Your task to perform on an android device: Show me the alarms in the clock app Image 0: 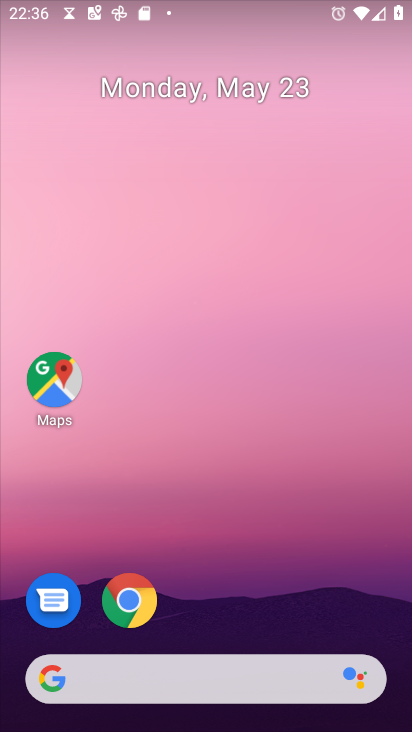
Step 0: drag from (180, 670) to (182, 202)
Your task to perform on an android device: Show me the alarms in the clock app Image 1: 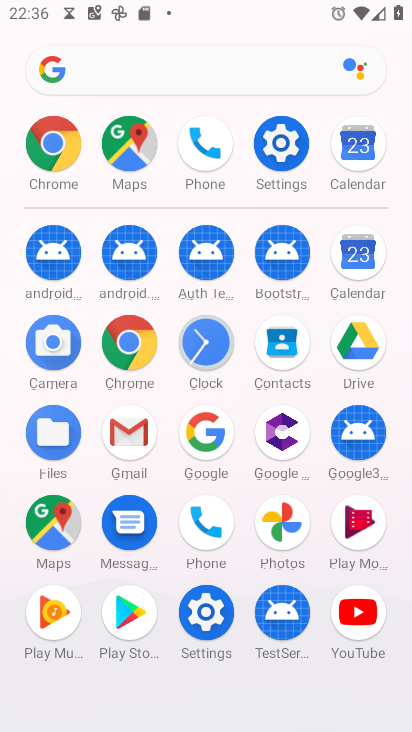
Step 1: click (211, 347)
Your task to perform on an android device: Show me the alarms in the clock app Image 2: 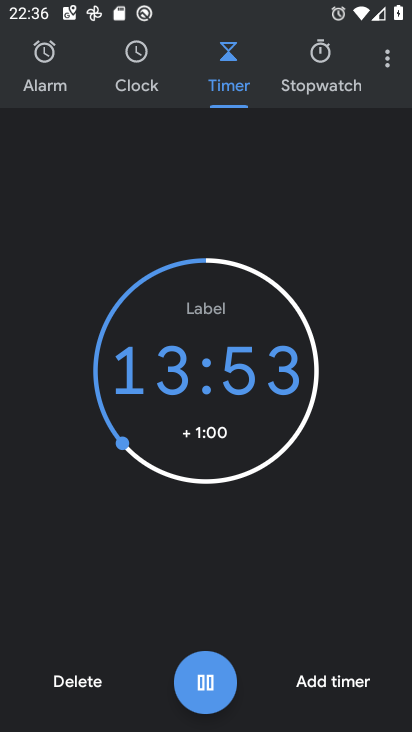
Step 2: click (43, 57)
Your task to perform on an android device: Show me the alarms in the clock app Image 3: 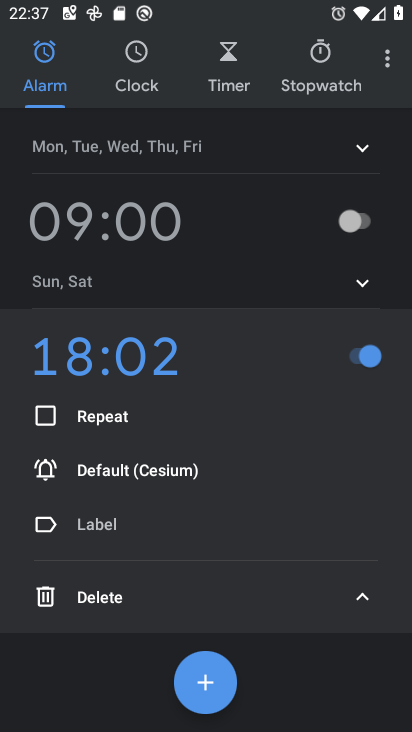
Step 3: task complete